Your task to perform on an android device: Open ESPN.com Image 0: 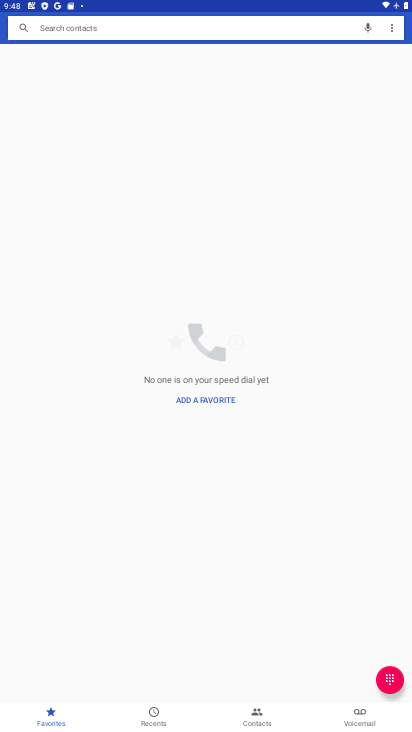
Step 0: press home button
Your task to perform on an android device: Open ESPN.com Image 1: 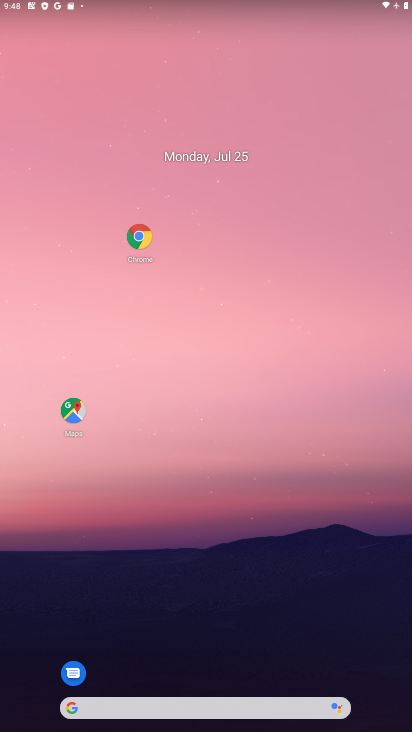
Step 1: click (140, 240)
Your task to perform on an android device: Open ESPN.com Image 2: 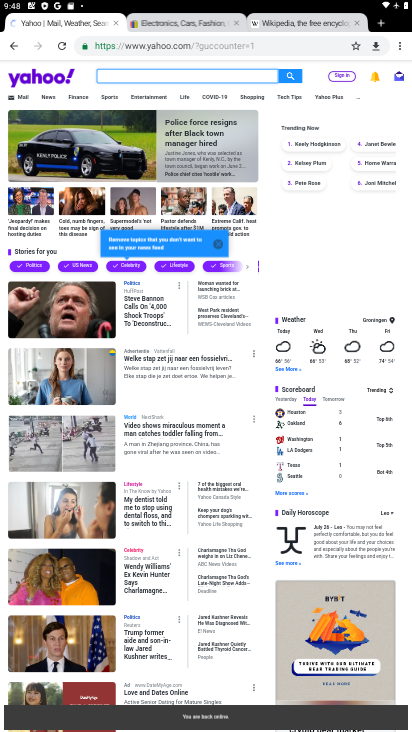
Step 2: click (378, 29)
Your task to perform on an android device: Open ESPN.com Image 3: 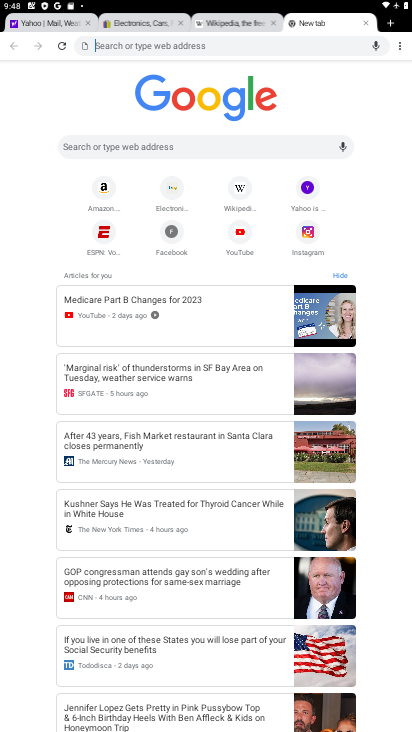
Step 3: click (107, 236)
Your task to perform on an android device: Open ESPN.com Image 4: 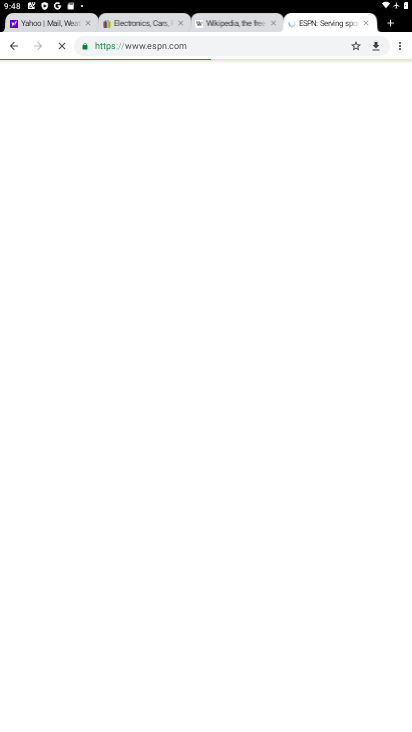
Step 4: task complete